Your task to perform on an android device: turn on translation in the chrome app Image 0: 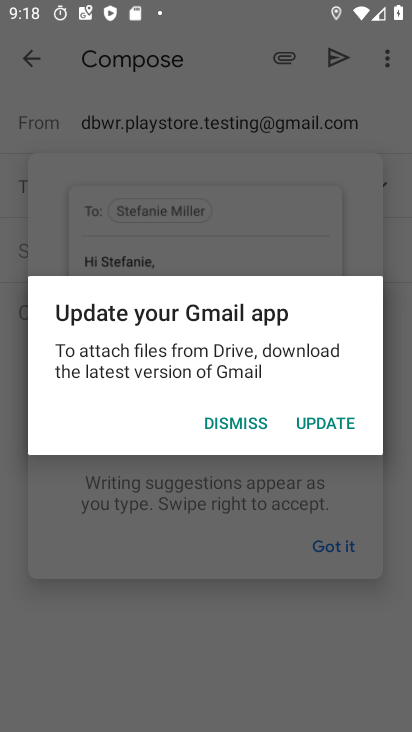
Step 0: press home button
Your task to perform on an android device: turn on translation in the chrome app Image 1: 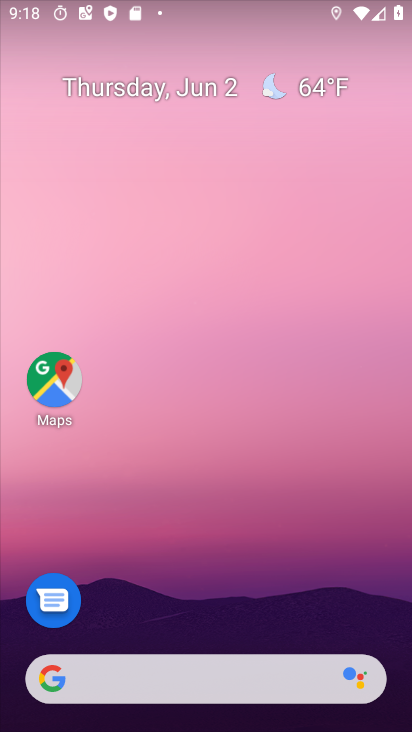
Step 1: drag from (190, 623) to (205, 88)
Your task to perform on an android device: turn on translation in the chrome app Image 2: 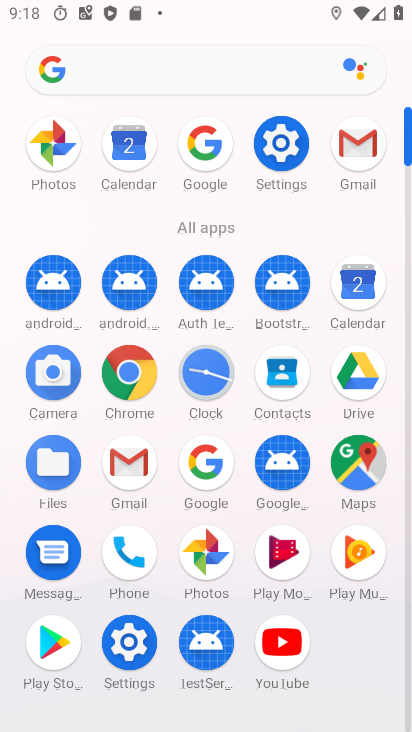
Step 2: click (130, 373)
Your task to perform on an android device: turn on translation in the chrome app Image 3: 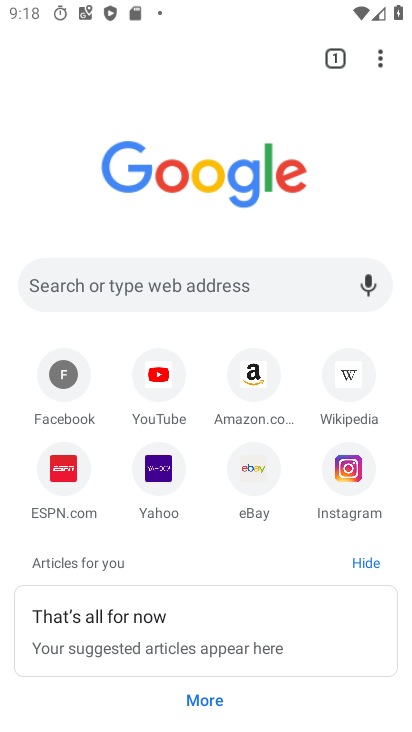
Step 3: click (368, 50)
Your task to perform on an android device: turn on translation in the chrome app Image 4: 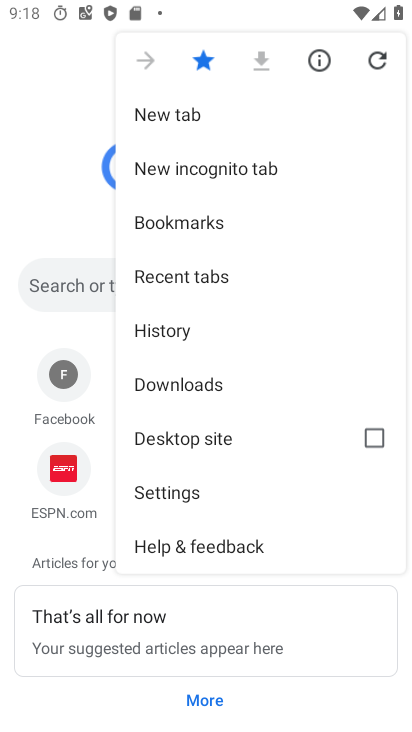
Step 4: click (236, 486)
Your task to perform on an android device: turn on translation in the chrome app Image 5: 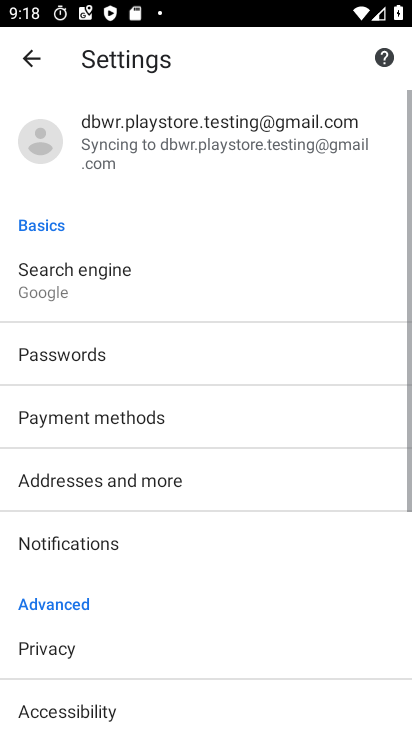
Step 5: drag from (235, 599) to (266, 126)
Your task to perform on an android device: turn on translation in the chrome app Image 6: 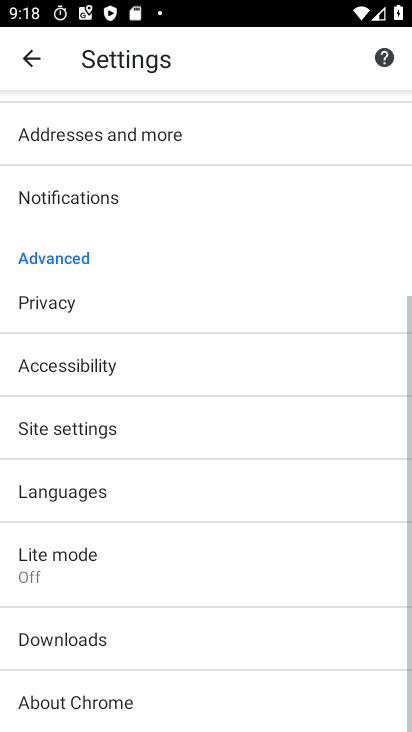
Step 6: click (186, 492)
Your task to perform on an android device: turn on translation in the chrome app Image 7: 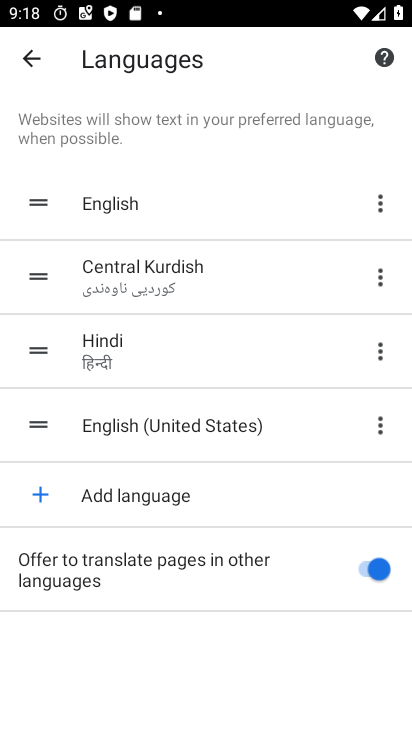
Step 7: task complete